Your task to perform on an android device: What is the recent news? Image 0: 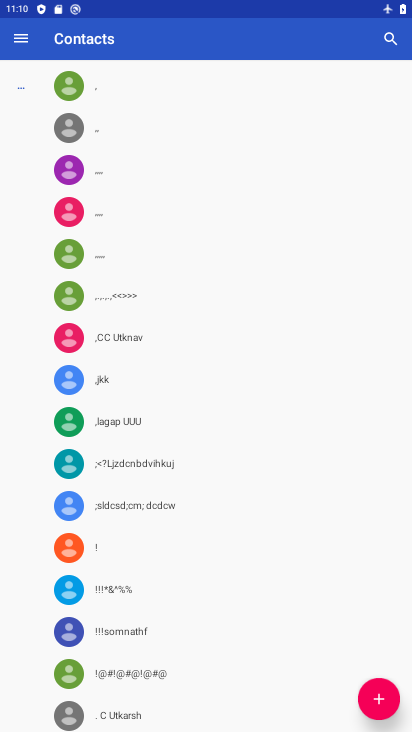
Step 0: press home button
Your task to perform on an android device: What is the recent news? Image 1: 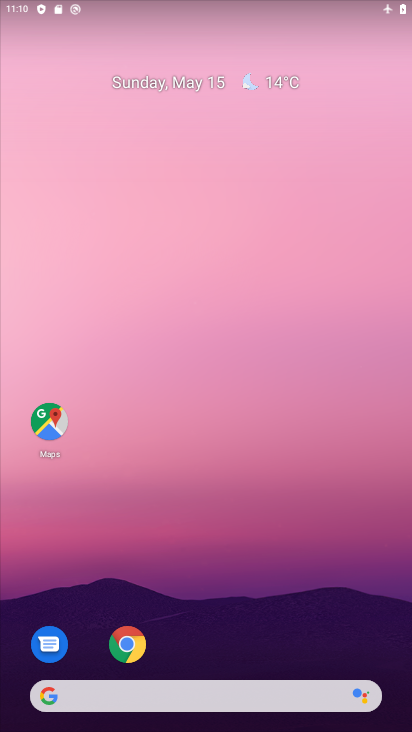
Step 1: click (112, 640)
Your task to perform on an android device: What is the recent news? Image 2: 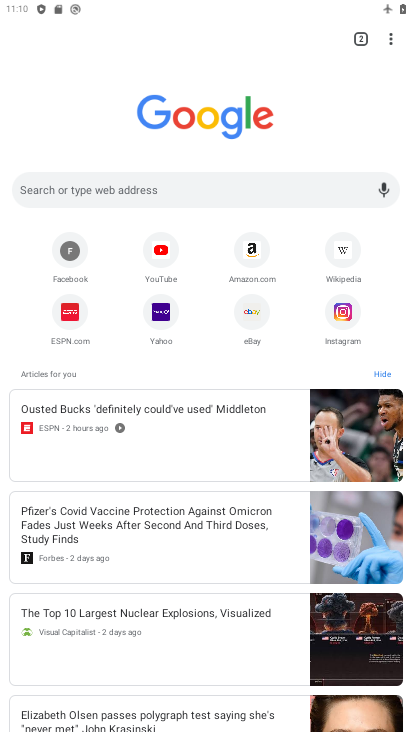
Step 2: click (105, 186)
Your task to perform on an android device: What is the recent news? Image 3: 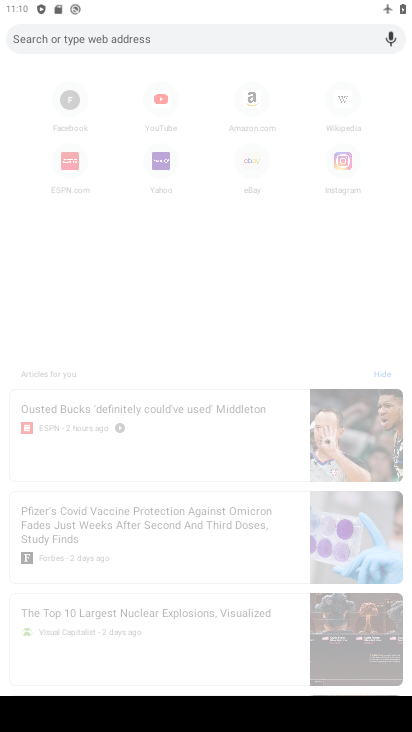
Step 3: type "recent news"
Your task to perform on an android device: What is the recent news? Image 4: 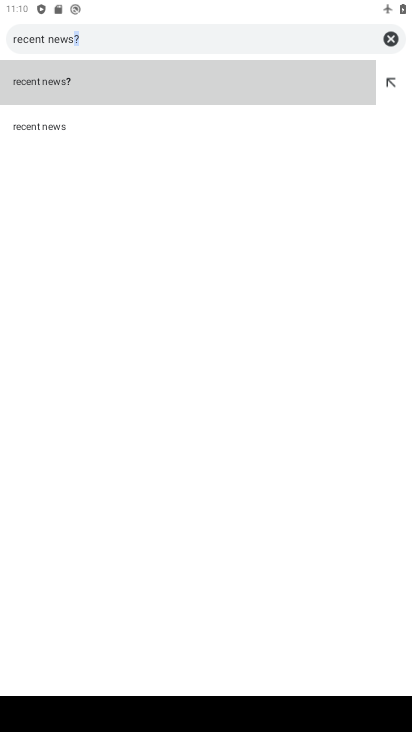
Step 4: click (17, 78)
Your task to perform on an android device: What is the recent news? Image 5: 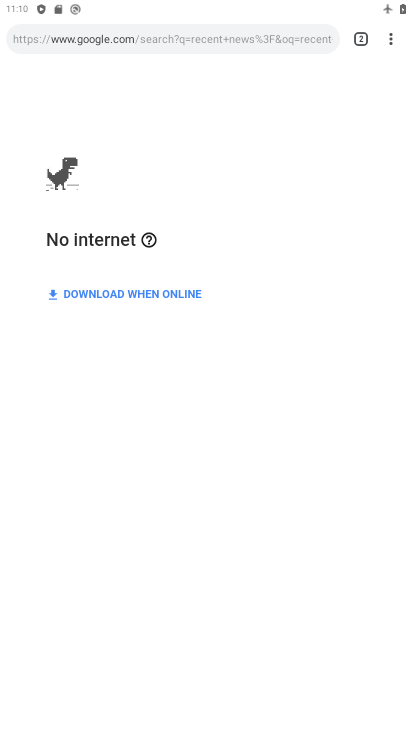
Step 5: task complete